Your task to perform on an android device: set default search engine in the chrome app Image 0: 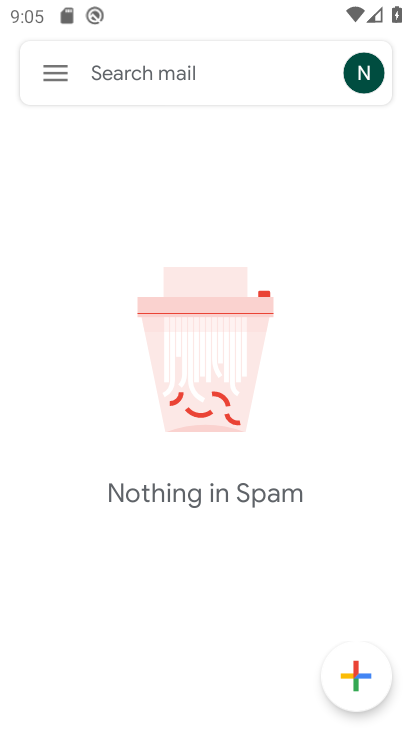
Step 0: press home button
Your task to perform on an android device: set default search engine in the chrome app Image 1: 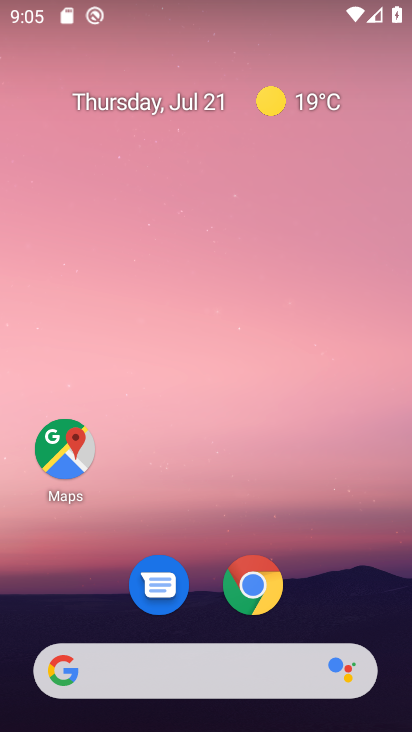
Step 1: click (261, 589)
Your task to perform on an android device: set default search engine in the chrome app Image 2: 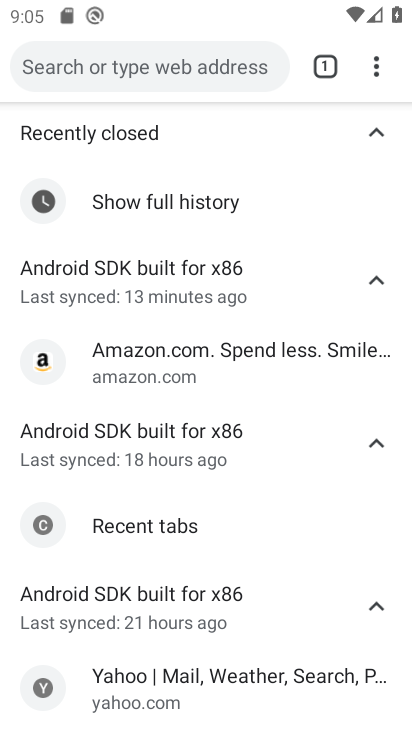
Step 2: click (369, 72)
Your task to perform on an android device: set default search engine in the chrome app Image 3: 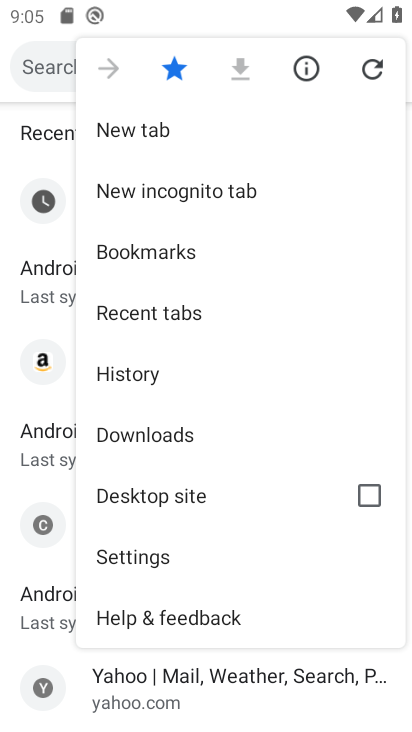
Step 3: click (156, 560)
Your task to perform on an android device: set default search engine in the chrome app Image 4: 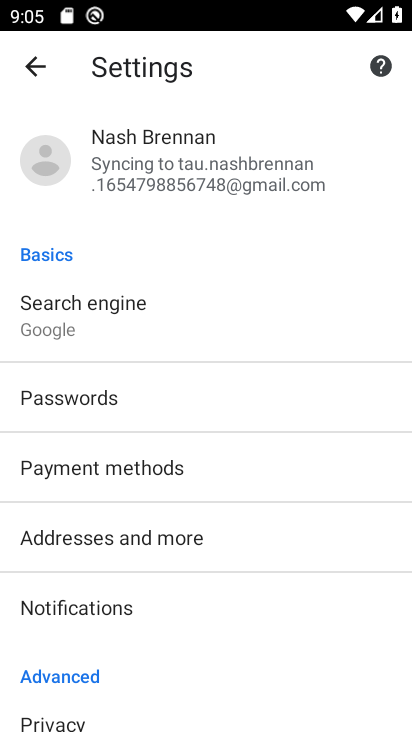
Step 4: click (128, 324)
Your task to perform on an android device: set default search engine in the chrome app Image 5: 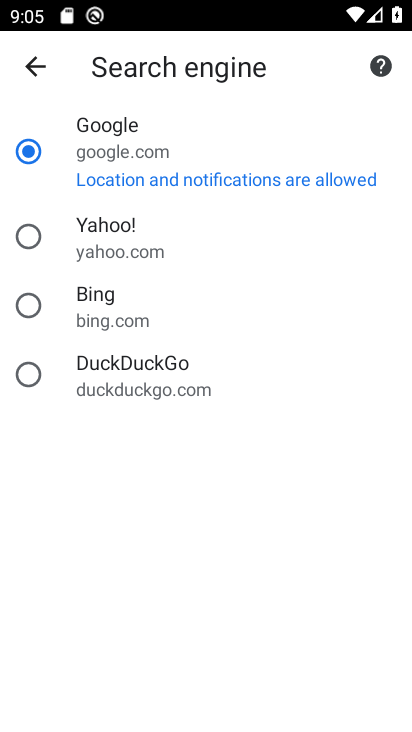
Step 5: task complete